Your task to perform on an android device: Go to Google Image 0: 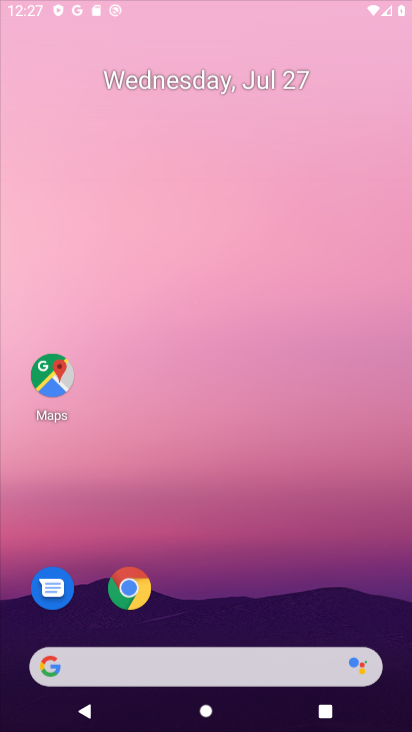
Step 0: click (367, 214)
Your task to perform on an android device: Go to Google Image 1: 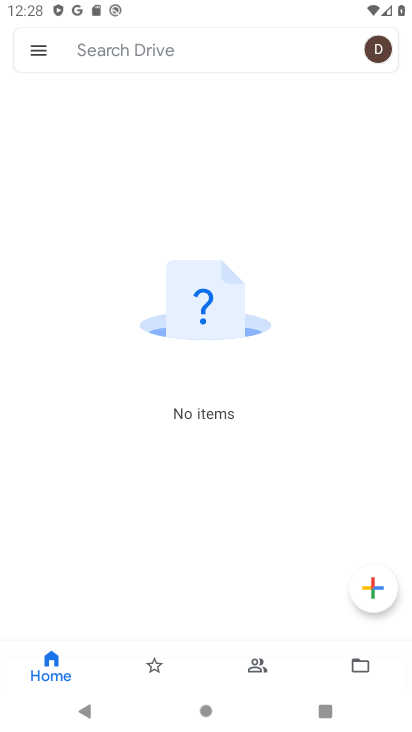
Step 1: press back button
Your task to perform on an android device: Go to Google Image 2: 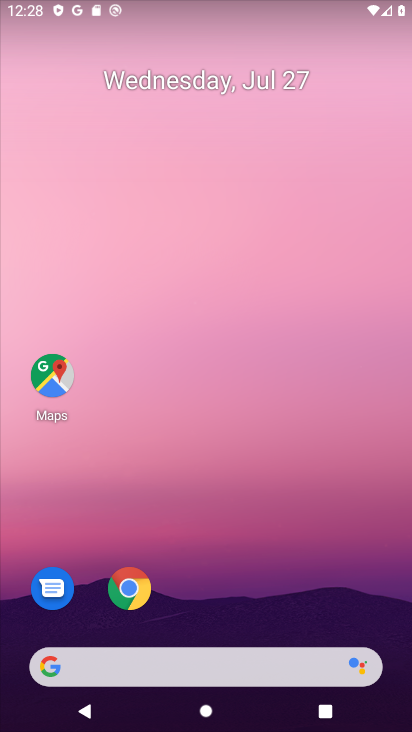
Step 2: drag from (388, 712) to (341, 75)
Your task to perform on an android device: Go to Google Image 3: 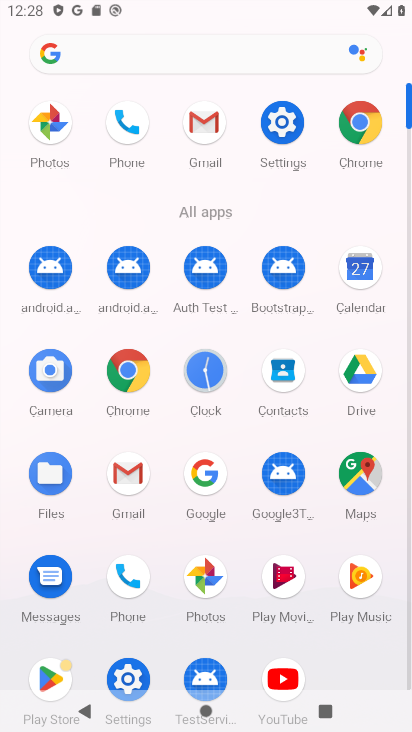
Step 3: click (197, 480)
Your task to perform on an android device: Go to Google Image 4: 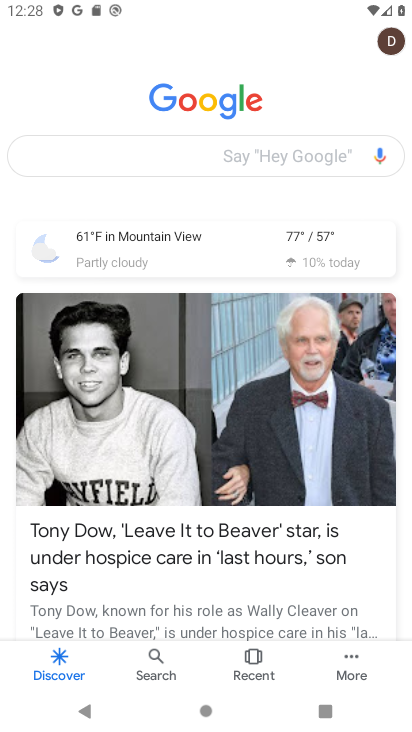
Step 4: task complete